Your task to perform on an android device: Go to sound settings Image 0: 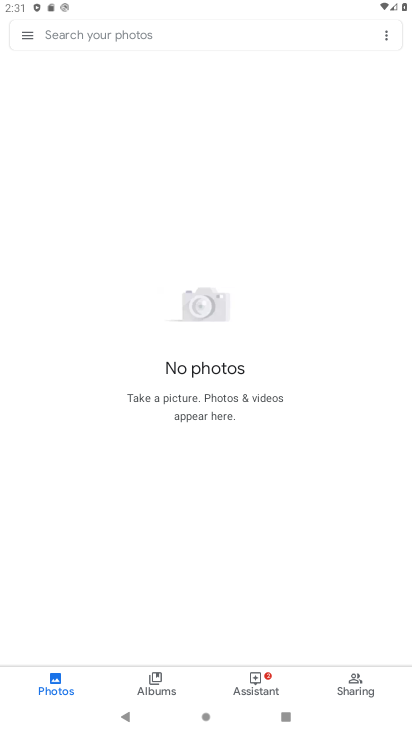
Step 0: press home button
Your task to perform on an android device: Go to sound settings Image 1: 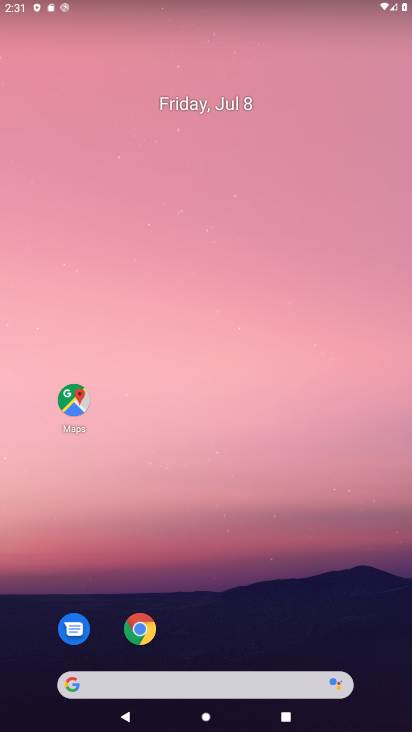
Step 1: drag from (76, 590) to (220, 3)
Your task to perform on an android device: Go to sound settings Image 2: 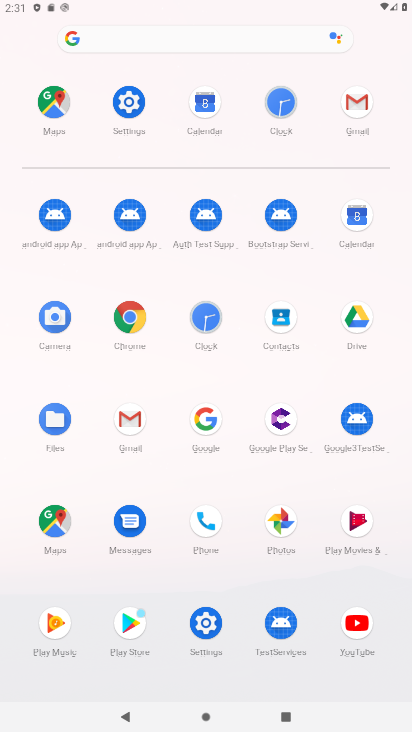
Step 2: drag from (224, 607) to (191, 636)
Your task to perform on an android device: Go to sound settings Image 3: 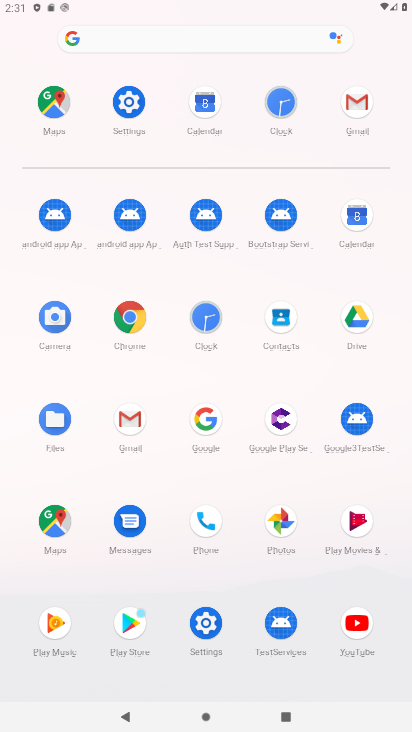
Step 3: click (204, 615)
Your task to perform on an android device: Go to sound settings Image 4: 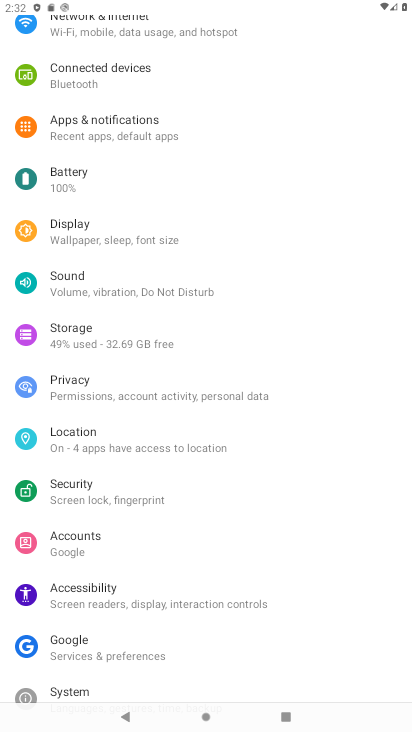
Step 4: click (87, 283)
Your task to perform on an android device: Go to sound settings Image 5: 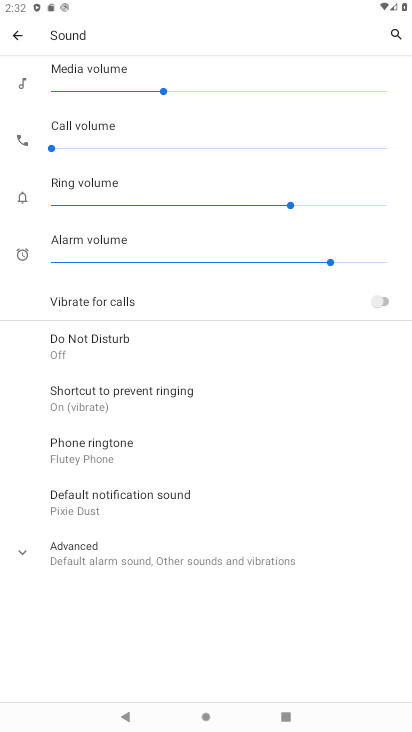
Step 5: task complete